Your task to perform on an android device: turn off sleep mode Image 0: 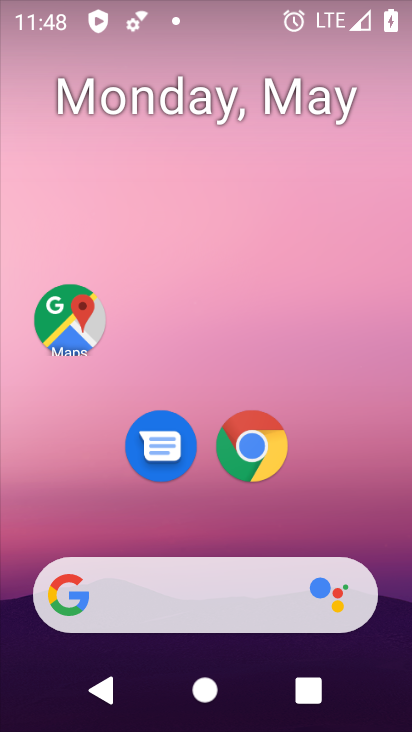
Step 0: drag from (320, 513) to (239, 47)
Your task to perform on an android device: turn off sleep mode Image 1: 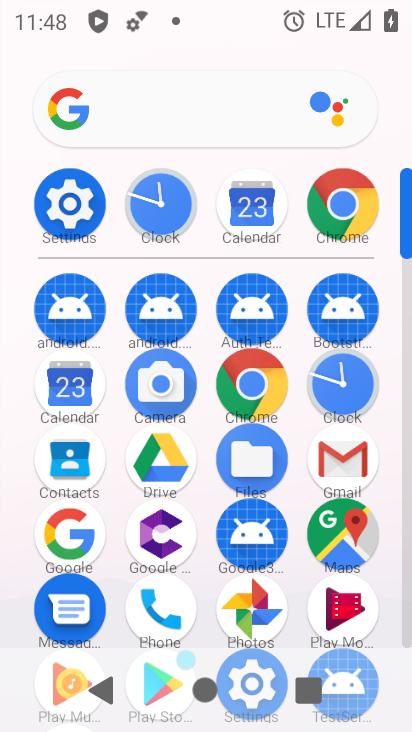
Step 1: click (59, 193)
Your task to perform on an android device: turn off sleep mode Image 2: 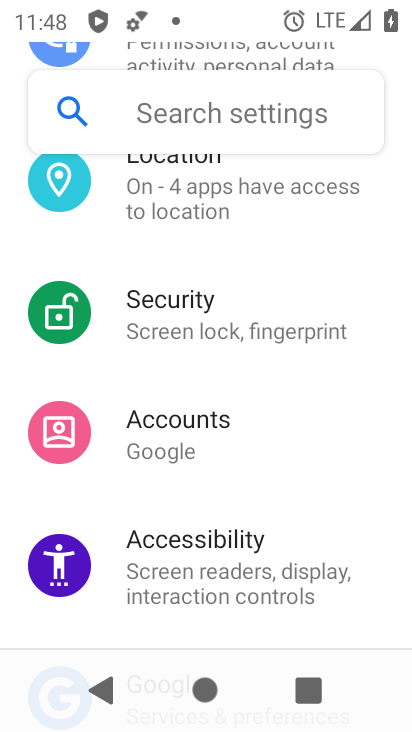
Step 2: drag from (250, 256) to (291, 715)
Your task to perform on an android device: turn off sleep mode Image 3: 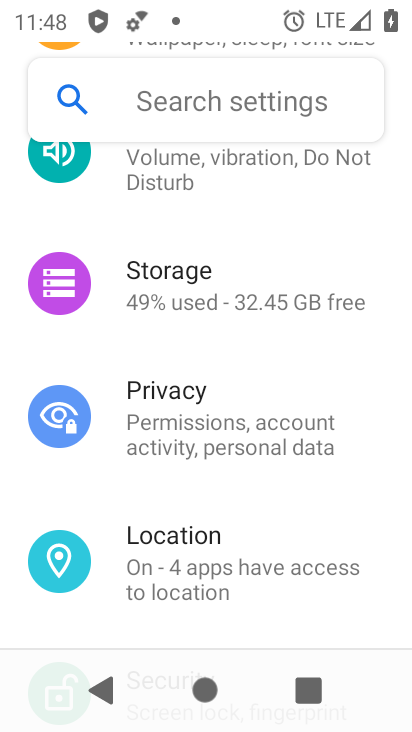
Step 3: drag from (243, 254) to (298, 682)
Your task to perform on an android device: turn off sleep mode Image 4: 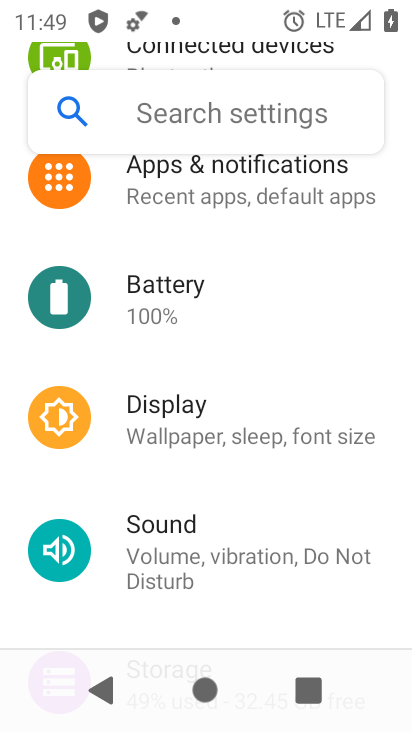
Step 4: click (187, 408)
Your task to perform on an android device: turn off sleep mode Image 5: 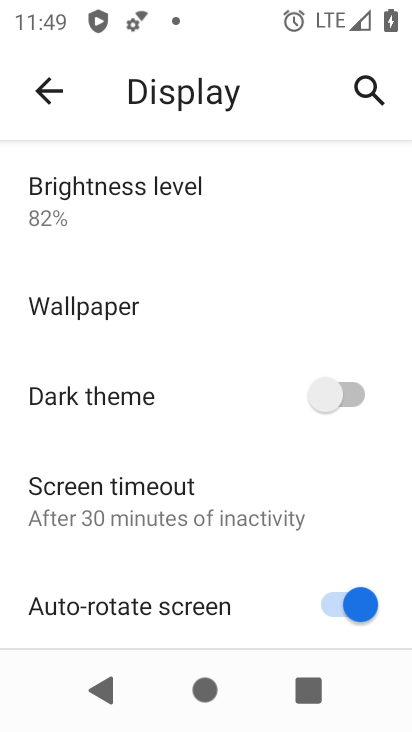
Step 5: task complete